Your task to perform on an android device: change the clock display to analog Image 0: 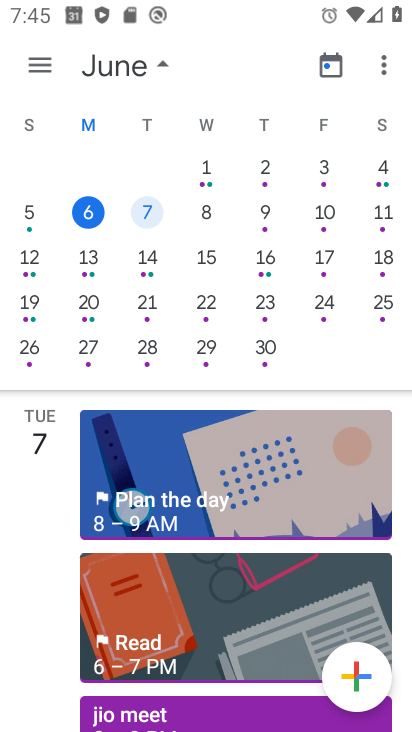
Step 0: press home button
Your task to perform on an android device: change the clock display to analog Image 1: 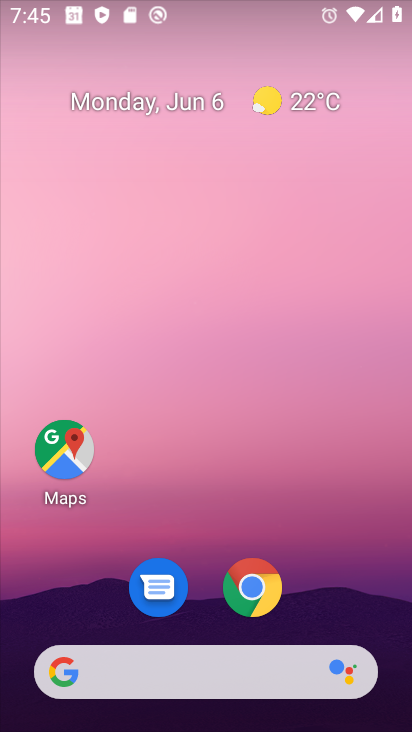
Step 1: drag from (311, 600) to (290, 30)
Your task to perform on an android device: change the clock display to analog Image 2: 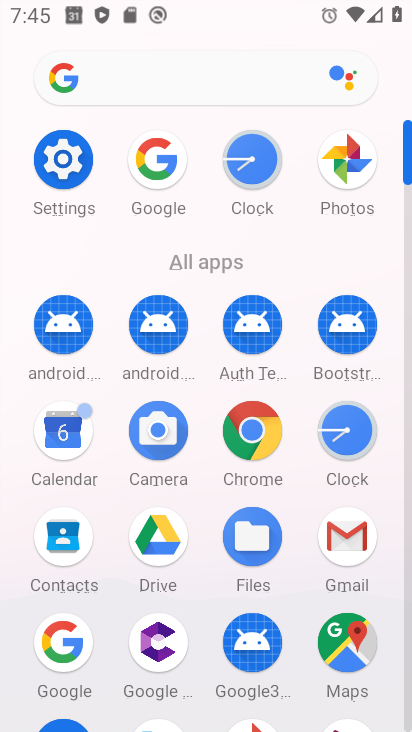
Step 2: click (351, 444)
Your task to perform on an android device: change the clock display to analog Image 3: 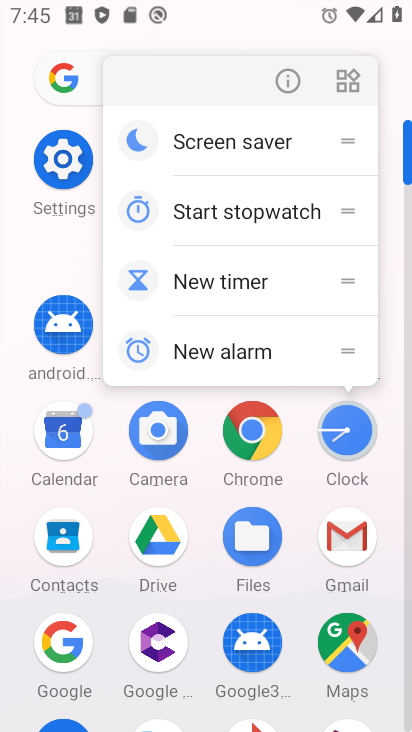
Step 3: click (337, 434)
Your task to perform on an android device: change the clock display to analog Image 4: 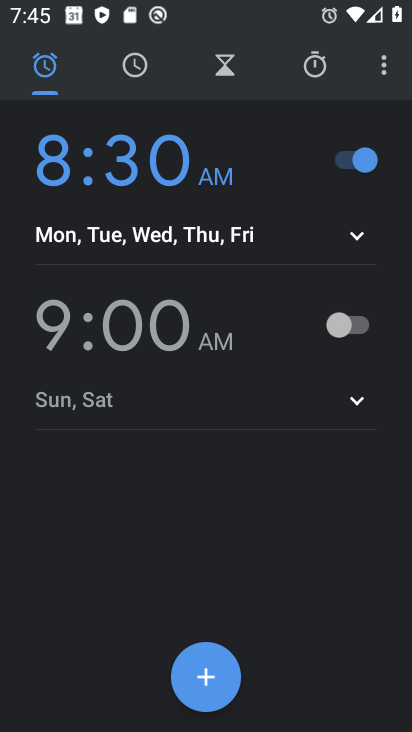
Step 4: click (381, 78)
Your task to perform on an android device: change the clock display to analog Image 5: 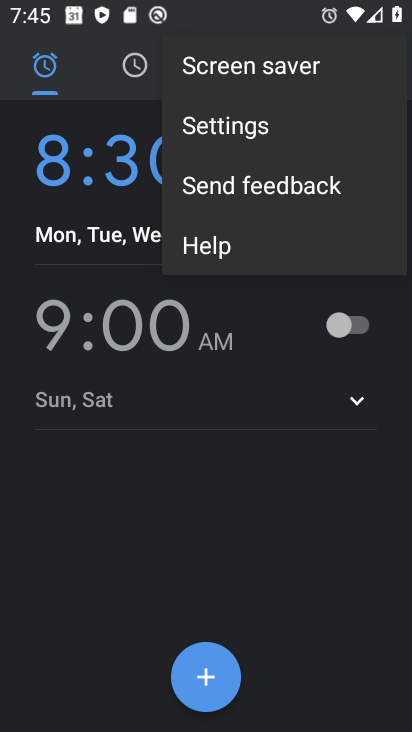
Step 5: click (237, 138)
Your task to perform on an android device: change the clock display to analog Image 6: 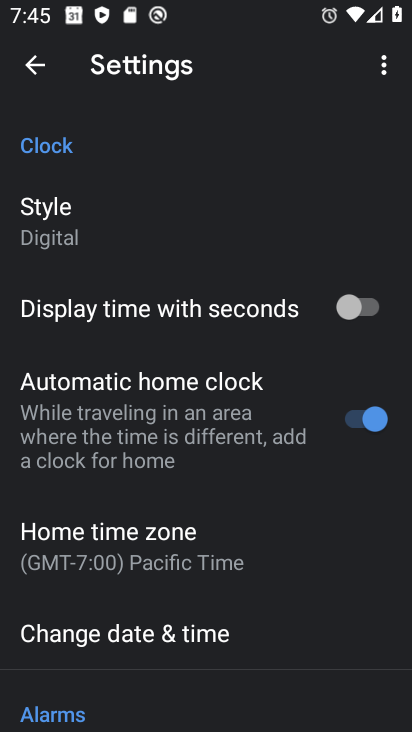
Step 6: click (54, 215)
Your task to perform on an android device: change the clock display to analog Image 7: 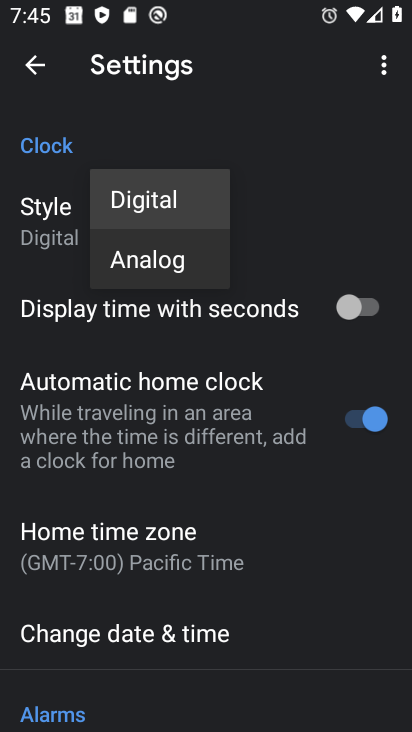
Step 7: click (160, 279)
Your task to perform on an android device: change the clock display to analog Image 8: 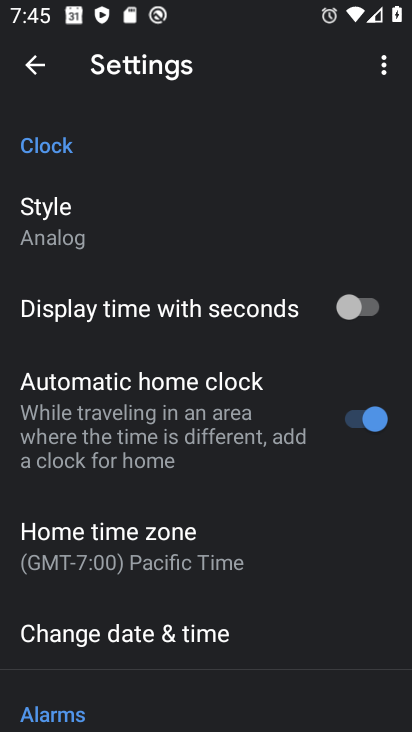
Step 8: click (142, 300)
Your task to perform on an android device: change the clock display to analog Image 9: 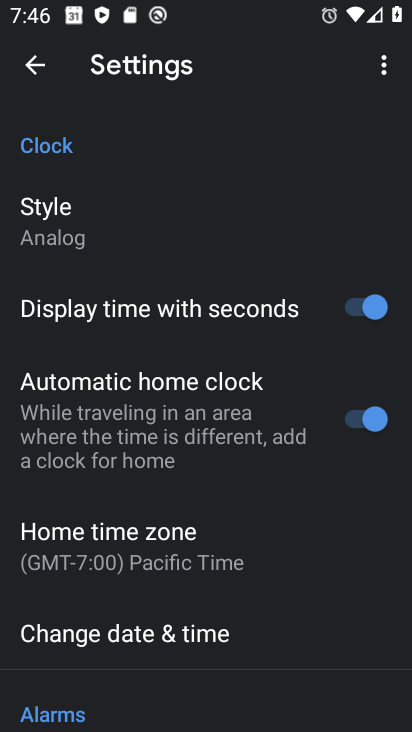
Step 9: task complete